Your task to perform on an android device: turn on the 24-hour format for clock Image 0: 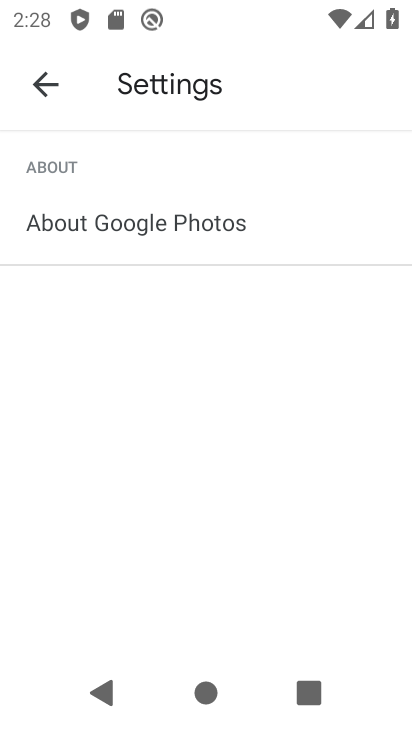
Step 0: press home button
Your task to perform on an android device: turn on the 24-hour format for clock Image 1: 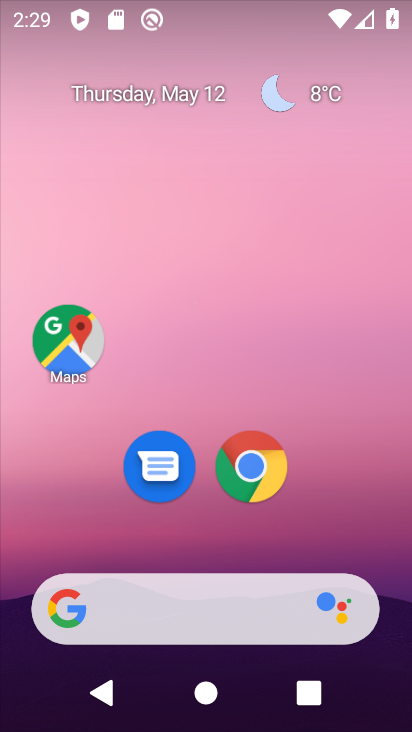
Step 1: drag from (365, 523) to (354, 41)
Your task to perform on an android device: turn on the 24-hour format for clock Image 2: 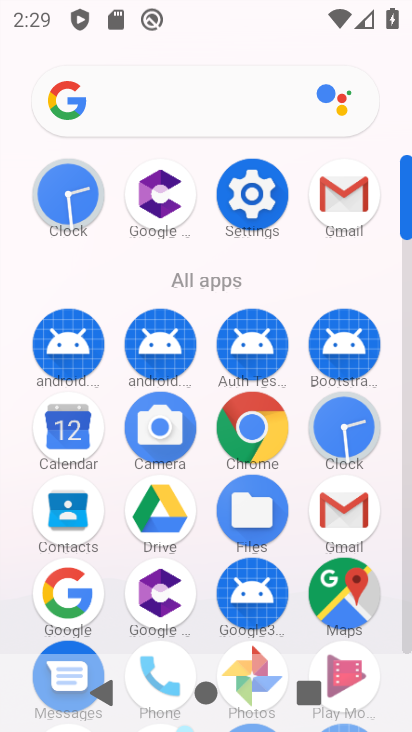
Step 2: click (355, 415)
Your task to perform on an android device: turn on the 24-hour format for clock Image 3: 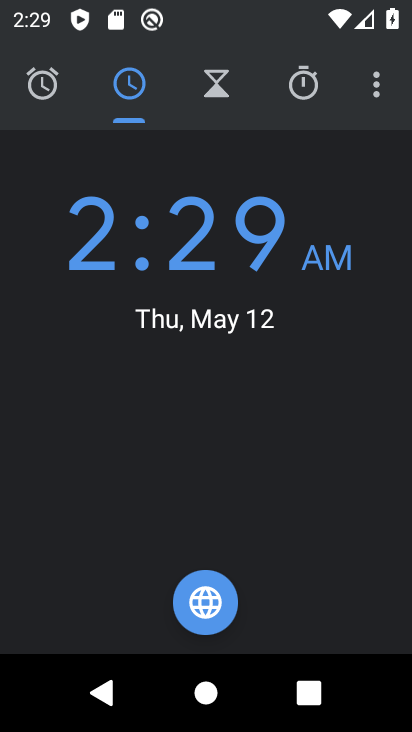
Step 3: click (371, 90)
Your task to perform on an android device: turn on the 24-hour format for clock Image 4: 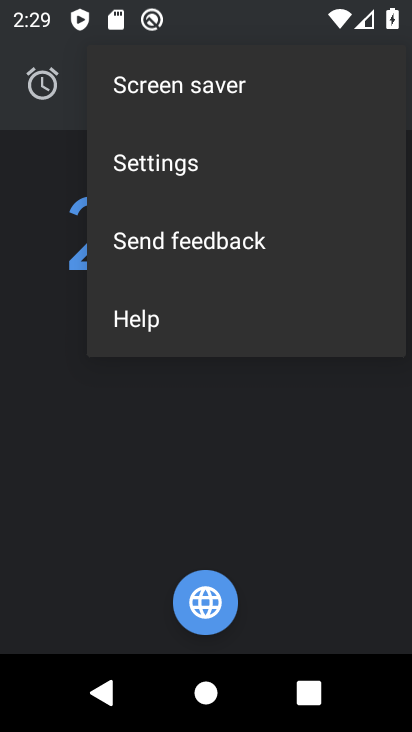
Step 4: click (167, 177)
Your task to perform on an android device: turn on the 24-hour format for clock Image 5: 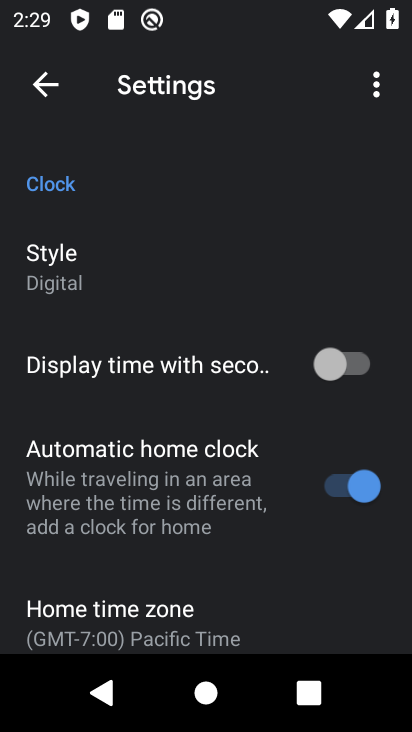
Step 5: drag from (154, 589) to (156, 289)
Your task to perform on an android device: turn on the 24-hour format for clock Image 6: 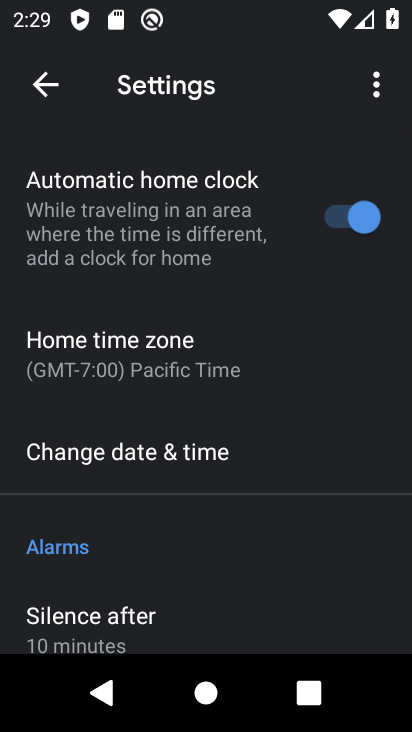
Step 6: click (160, 449)
Your task to perform on an android device: turn on the 24-hour format for clock Image 7: 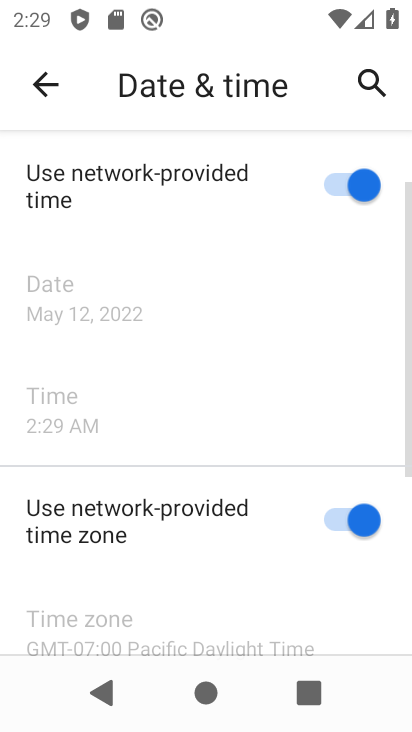
Step 7: drag from (217, 580) to (206, 247)
Your task to perform on an android device: turn on the 24-hour format for clock Image 8: 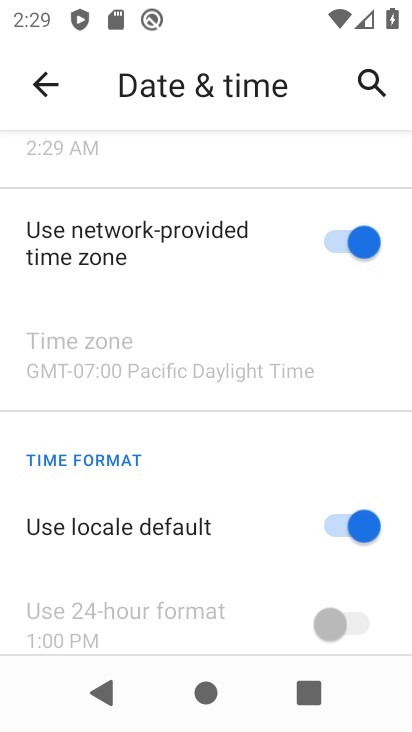
Step 8: click (330, 529)
Your task to perform on an android device: turn on the 24-hour format for clock Image 9: 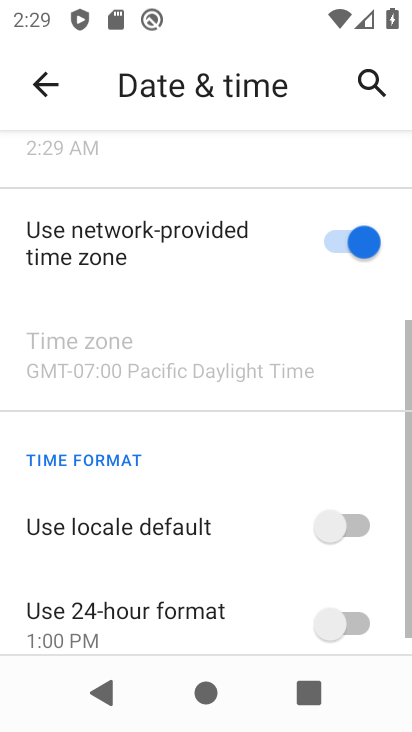
Step 9: click (329, 623)
Your task to perform on an android device: turn on the 24-hour format for clock Image 10: 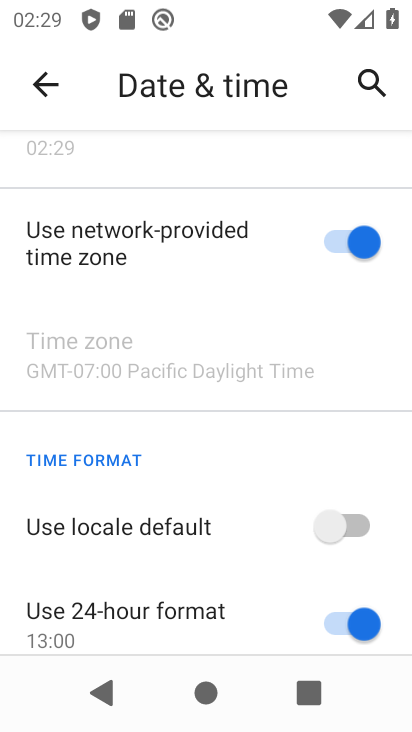
Step 10: task complete